Your task to perform on an android device: Show me popular videos on Youtube Image 0: 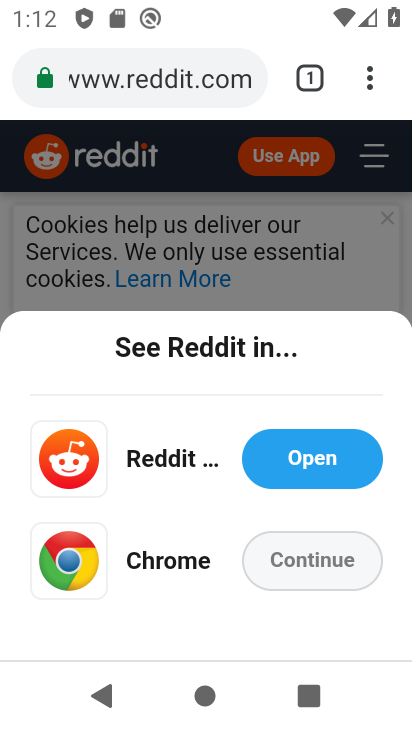
Step 0: press home button
Your task to perform on an android device: Show me popular videos on Youtube Image 1: 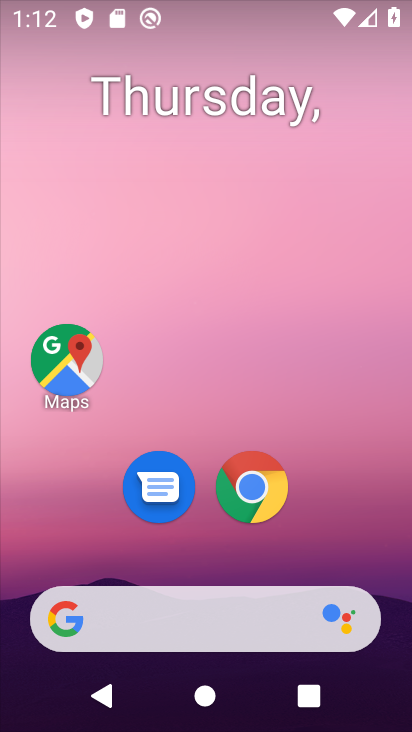
Step 1: drag from (307, 509) to (176, 82)
Your task to perform on an android device: Show me popular videos on Youtube Image 2: 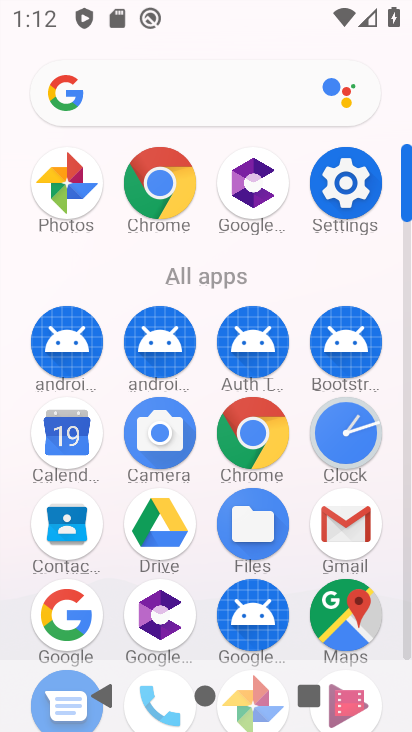
Step 2: drag from (302, 605) to (199, 271)
Your task to perform on an android device: Show me popular videos on Youtube Image 3: 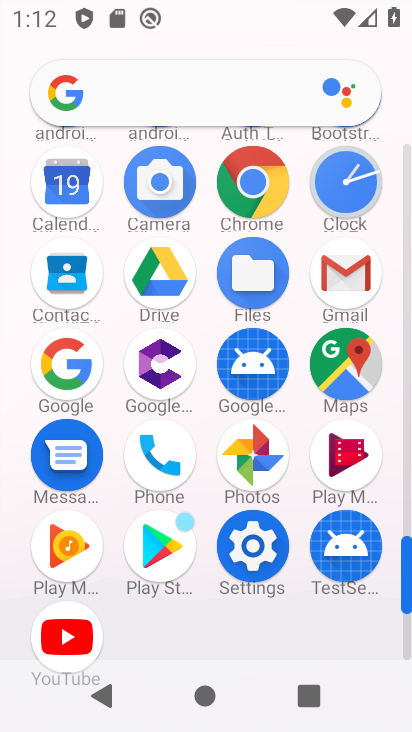
Step 3: click (54, 650)
Your task to perform on an android device: Show me popular videos on Youtube Image 4: 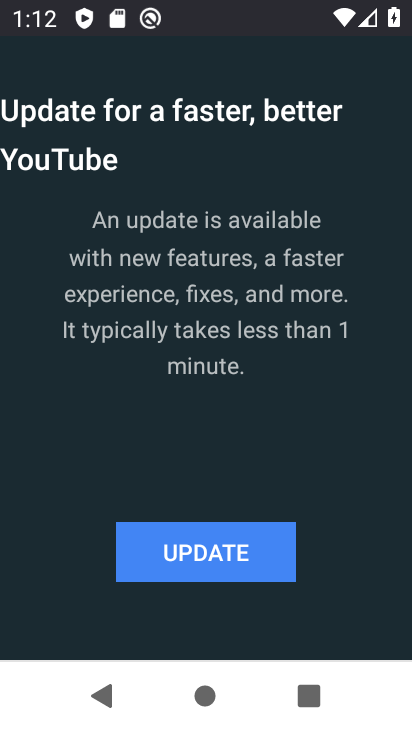
Step 4: press home button
Your task to perform on an android device: Show me popular videos on Youtube Image 5: 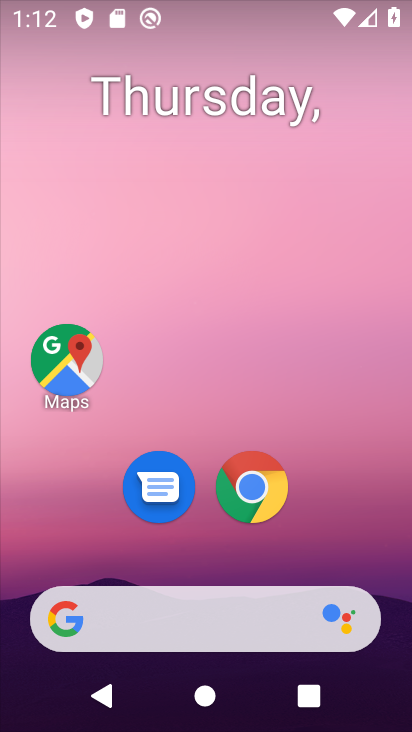
Step 5: drag from (273, 544) to (160, 160)
Your task to perform on an android device: Show me popular videos on Youtube Image 6: 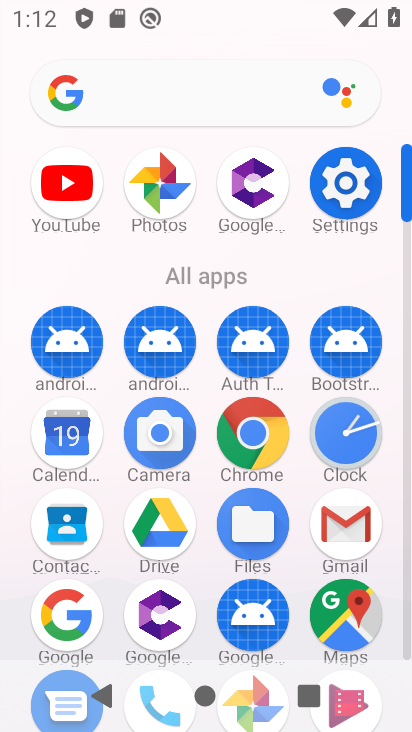
Step 6: click (62, 182)
Your task to perform on an android device: Show me popular videos on Youtube Image 7: 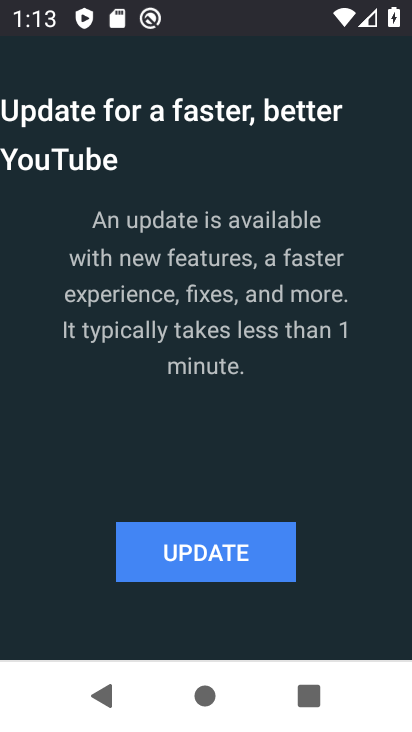
Step 7: click (224, 566)
Your task to perform on an android device: Show me popular videos on Youtube Image 8: 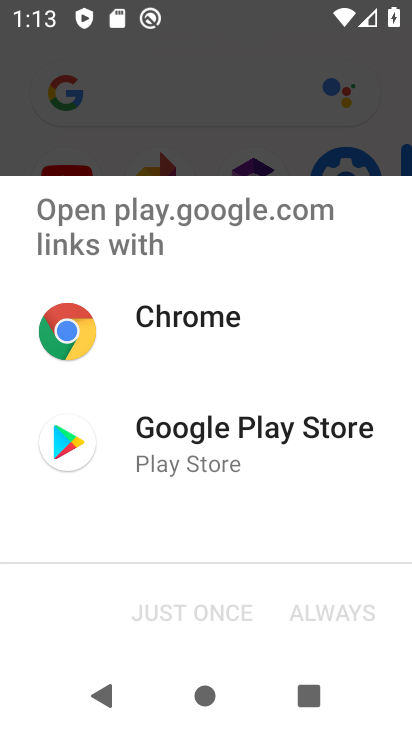
Step 8: click (167, 451)
Your task to perform on an android device: Show me popular videos on Youtube Image 9: 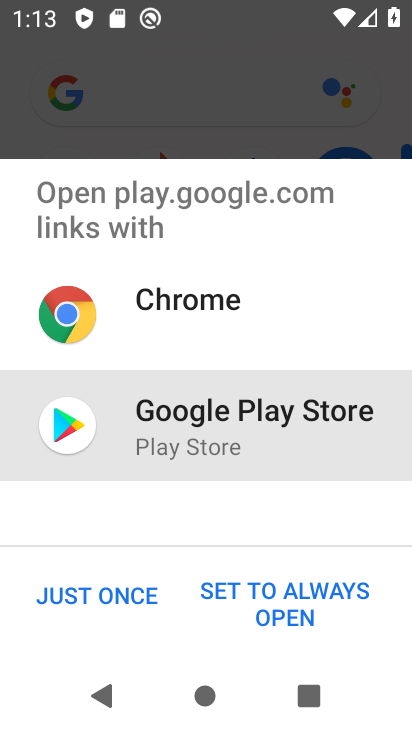
Step 9: click (168, 456)
Your task to perform on an android device: Show me popular videos on Youtube Image 10: 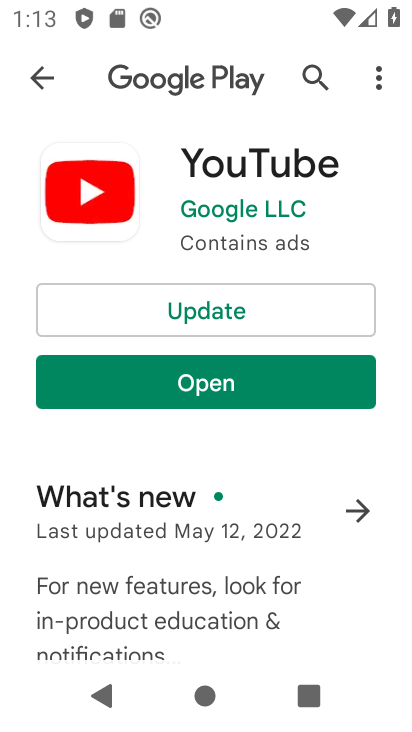
Step 10: click (226, 322)
Your task to perform on an android device: Show me popular videos on Youtube Image 11: 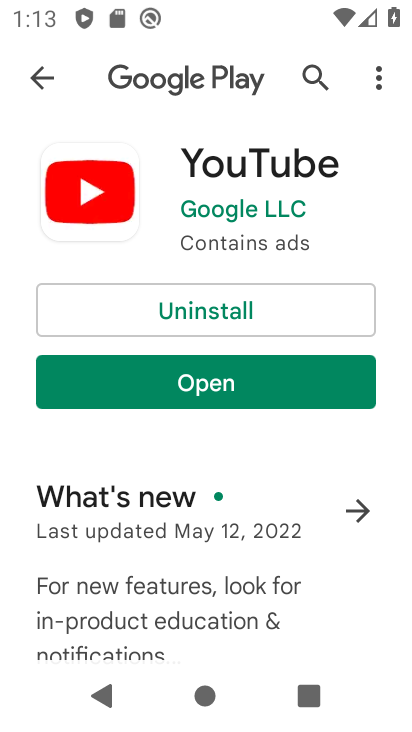
Step 11: click (249, 387)
Your task to perform on an android device: Show me popular videos on Youtube Image 12: 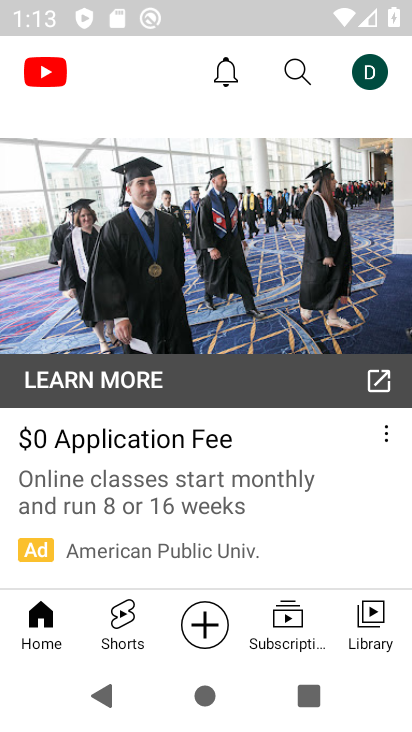
Step 12: task complete